Your task to perform on an android device: Open Google Maps Image 0: 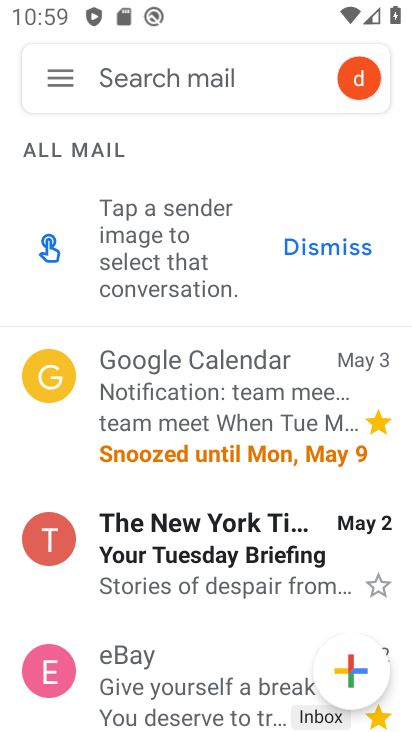
Step 0: press home button
Your task to perform on an android device: Open Google Maps Image 1: 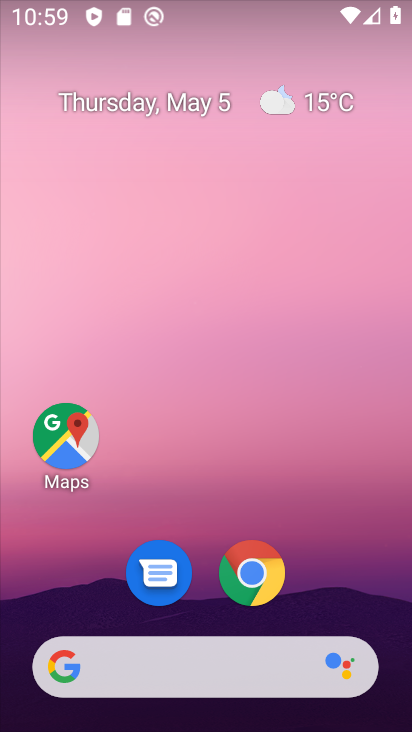
Step 1: click (84, 442)
Your task to perform on an android device: Open Google Maps Image 2: 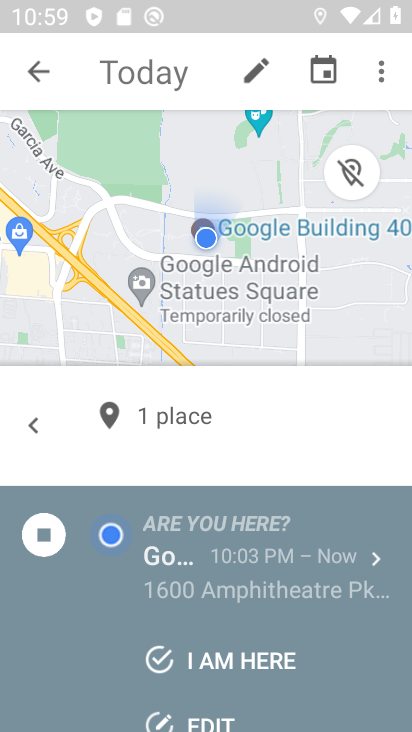
Step 2: click (37, 426)
Your task to perform on an android device: Open Google Maps Image 3: 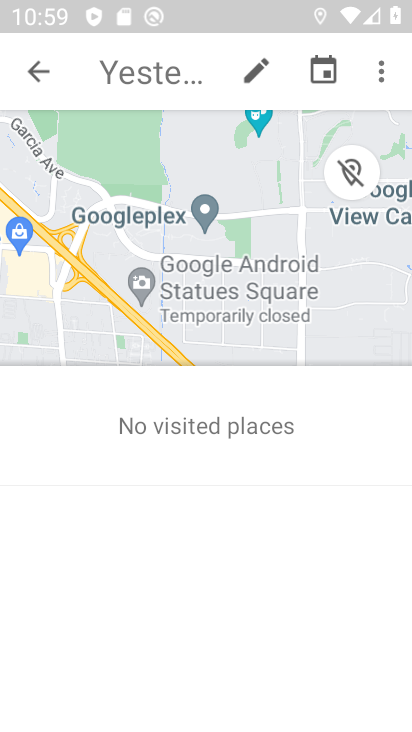
Step 3: click (50, 84)
Your task to perform on an android device: Open Google Maps Image 4: 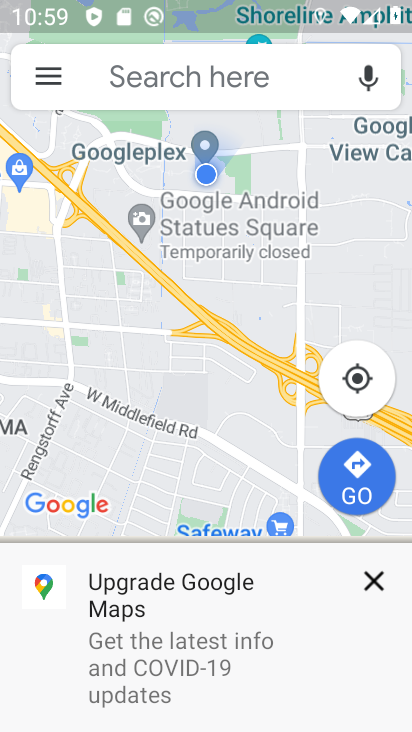
Step 4: task complete